Your task to perform on an android device: Add dell xps to the cart on costco.com Image 0: 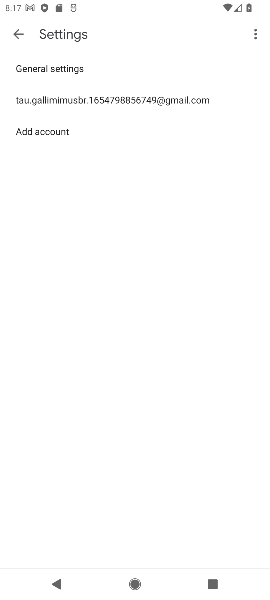
Step 0: press home button
Your task to perform on an android device: Add dell xps to the cart on costco.com Image 1: 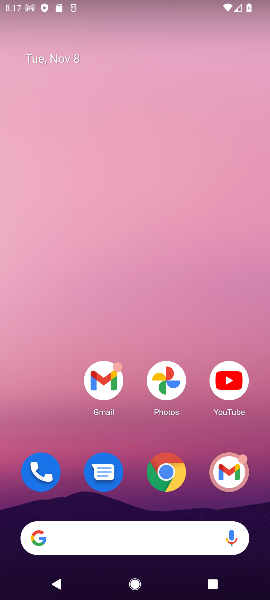
Step 1: click (169, 463)
Your task to perform on an android device: Add dell xps to the cart on costco.com Image 2: 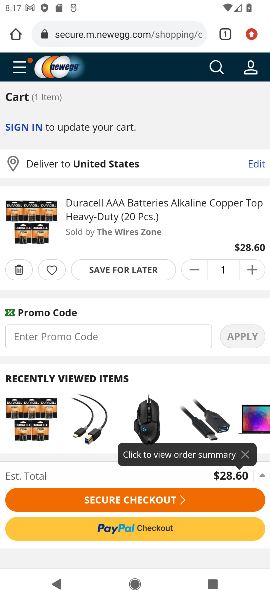
Step 2: click (96, 37)
Your task to perform on an android device: Add dell xps to the cart on costco.com Image 3: 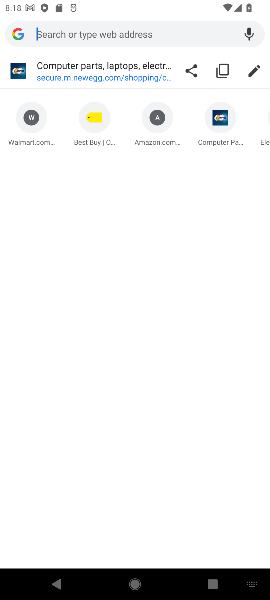
Step 3: type " costco.com"
Your task to perform on an android device: Add dell xps to the cart on costco.com Image 4: 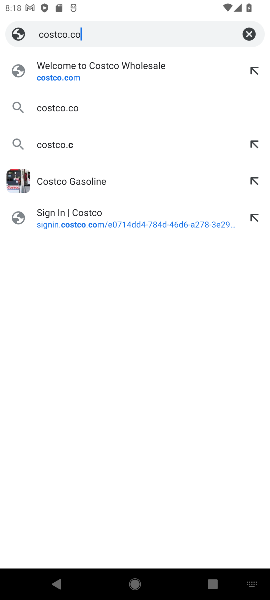
Step 4: press enter
Your task to perform on an android device: Add dell xps to the cart on costco.com Image 5: 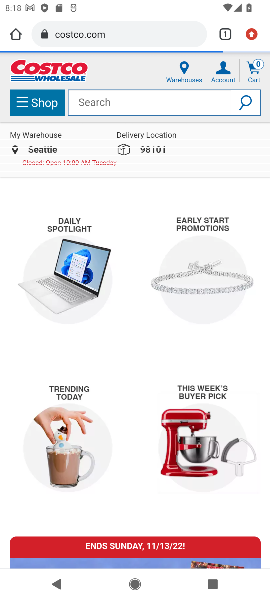
Step 5: click (129, 101)
Your task to perform on an android device: Add dell xps to the cart on costco.com Image 6: 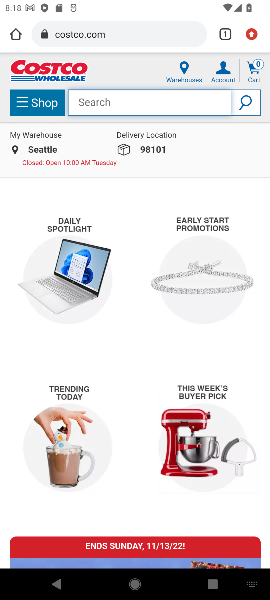
Step 6: type " dell xps"
Your task to perform on an android device: Add dell xps to the cart on costco.com Image 7: 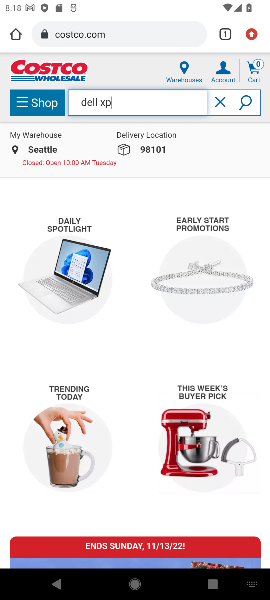
Step 7: press enter
Your task to perform on an android device: Add dell xps to the cart on costco.com Image 8: 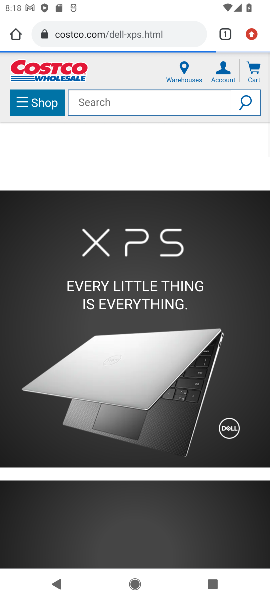
Step 8: press enter
Your task to perform on an android device: Add dell xps to the cart on costco.com Image 9: 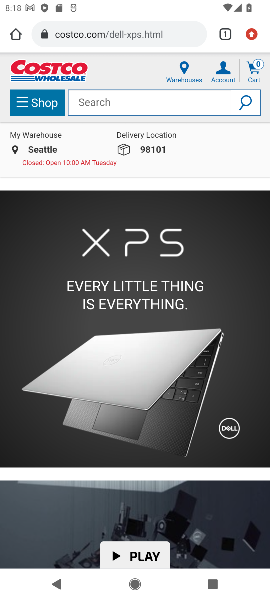
Step 9: drag from (71, 528) to (125, 324)
Your task to perform on an android device: Add dell xps to the cart on costco.com Image 10: 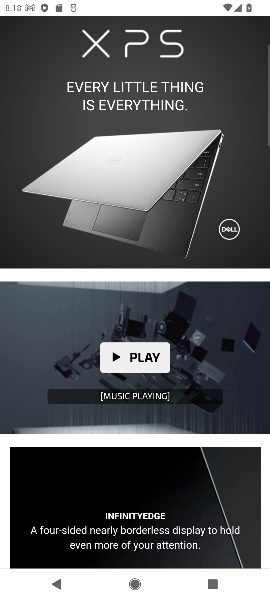
Step 10: click (128, 303)
Your task to perform on an android device: Add dell xps to the cart on costco.com Image 11: 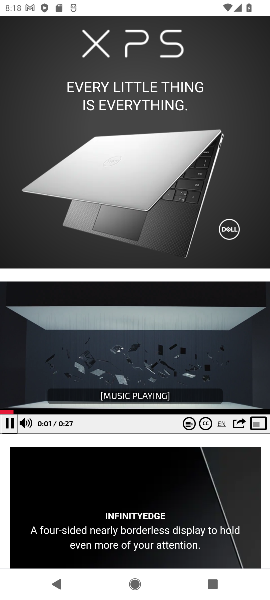
Step 11: drag from (84, 520) to (168, 2)
Your task to perform on an android device: Add dell xps to the cart on costco.com Image 12: 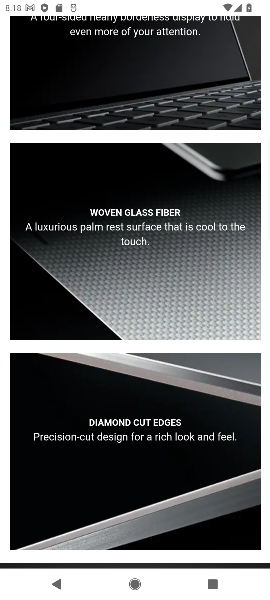
Step 12: drag from (95, 442) to (230, 7)
Your task to perform on an android device: Add dell xps to the cart on costco.com Image 13: 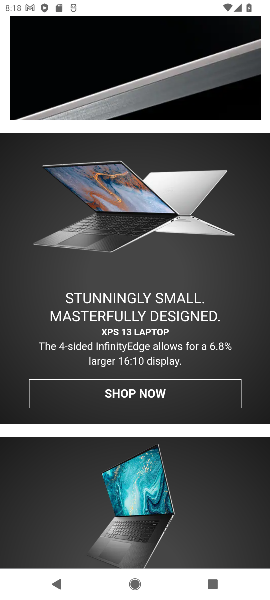
Step 13: drag from (136, 509) to (187, 61)
Your task to perform on an android device: Add dell xps to the cart on costco.com Image 14: 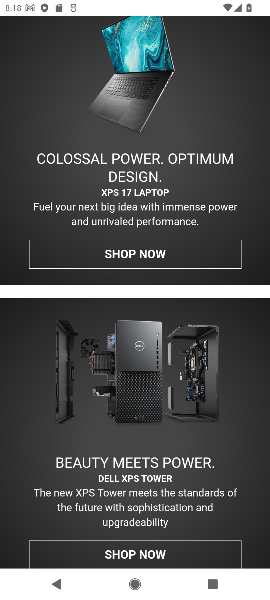
Step 14: drag from (188, 61) to (205, 471)
Your task to perform on an android device: Add dell xps to the cart on costco.com Image 15: 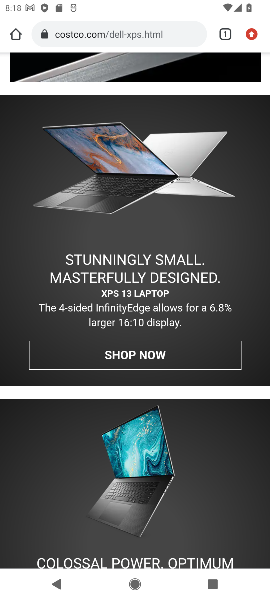
Step 15: drag from (156, 152) to (181, 510)
Your task to perform on an android device: Add dell xps to the cart on costco.com Image 16: 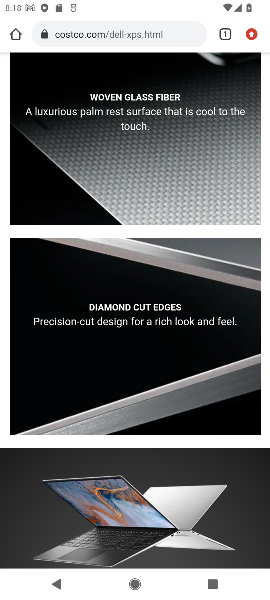
Step 16: drag from (161, 205) to (166, 561)
Your task to perform on an android device: Add dell xps to the cart on costco.com Image 17: 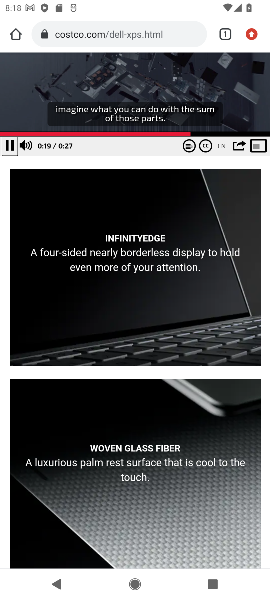
Step 17: drag from (172, 255) to (164, 530)
Your task to perform on an android device: Add dell xps to the cart on costco.com Image 18: 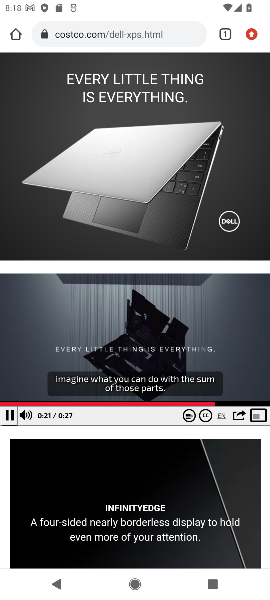
Step 18: drag from (199, 103) to (200, 427)
Your task to perform on an android device: Add dell xps to the cart on costco.com Image 19: 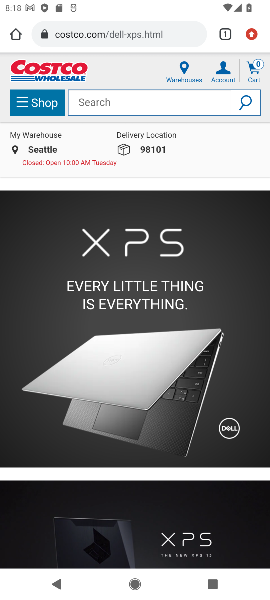
Step 19: drag from (121, 491) to (187, 131)
Your task to perform on an android device: Add dell xps to the cart on costco.com Image 20: 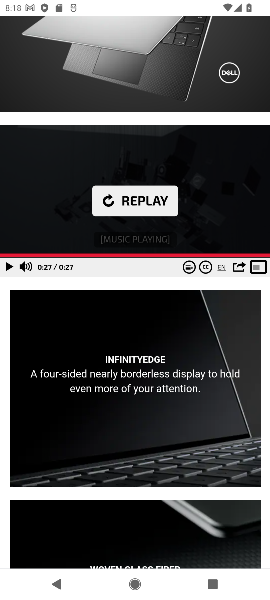
Step 20: drag from (138, 395) to (209, 6)
Your task to perform on an android device: Add dell xps to the cart on costco.com Image 21: 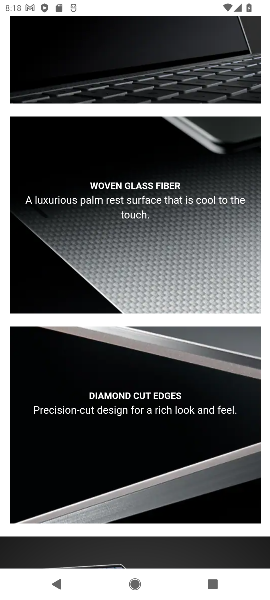
Step 21: drag from (138, 422) to (217, 74)
Your task to perform on an android device: Add dell xps to the cart on costco.com Image 22: 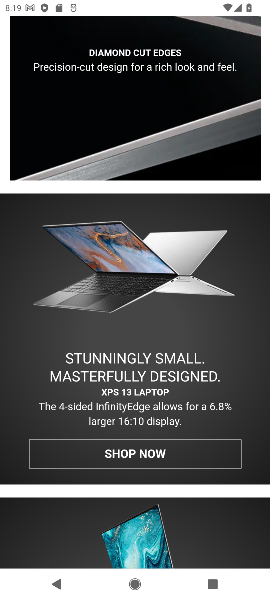
Step 22: click (129, 451)
Your task to perform on an android device: Add dell xps to the cart on costco.com Image 23: 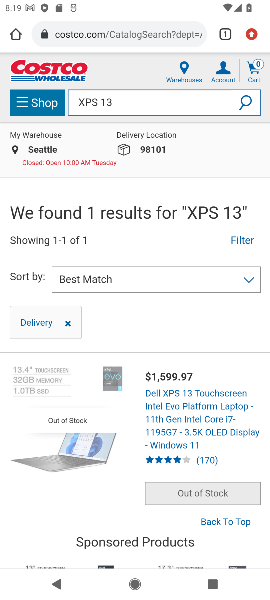
Step 23: task complete